Your task to perform on an android device: open a new tab in the chrome app Image 0: 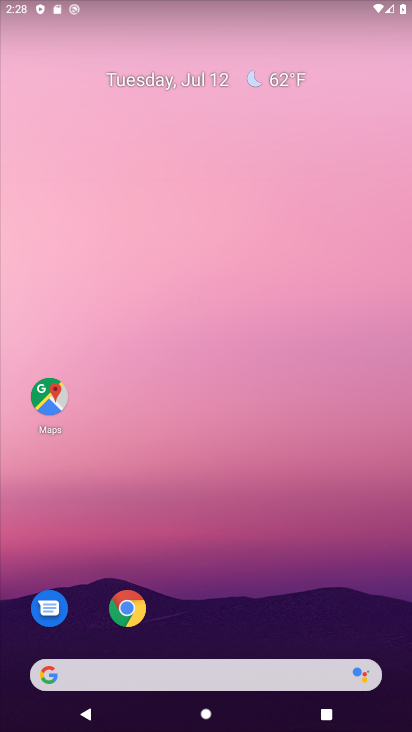
Step 0: click (124, 615)
Your task to perform on an android device: open a new tab in the chrome app Image 1: 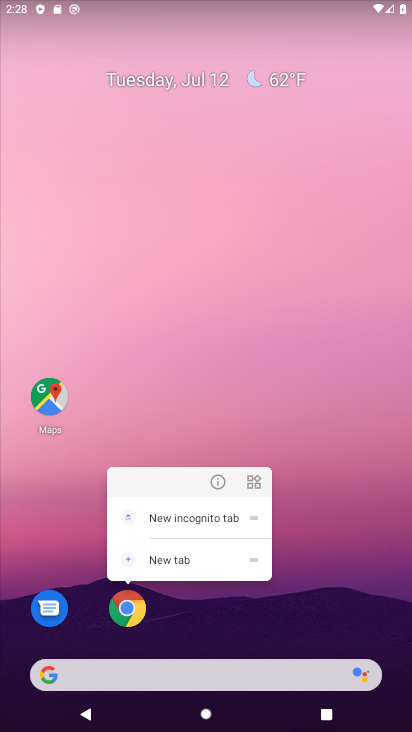
Step 1: click (124, 615)
Your task to perform on an android device: open a new tab in the chrome app Image 2: 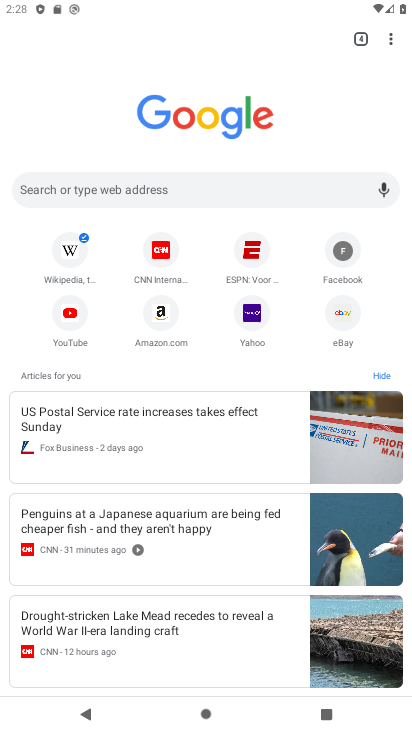
Step 2: task complete